Your task to perform on an android device: turn on sleep mode Image 0: 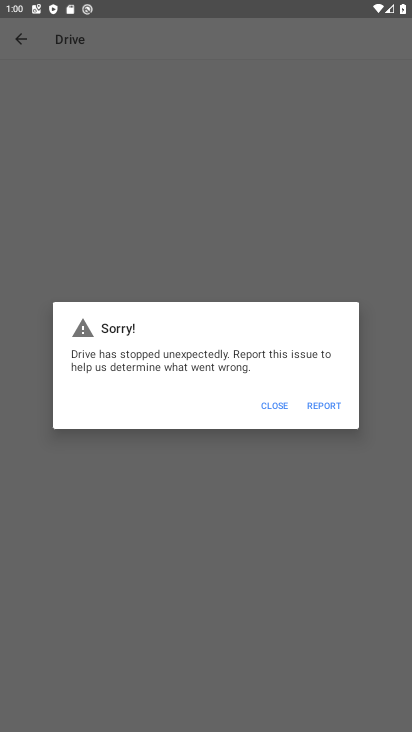
Step 0: press home button
Your task to perform on an android device: turn on sleep mode Image 1: 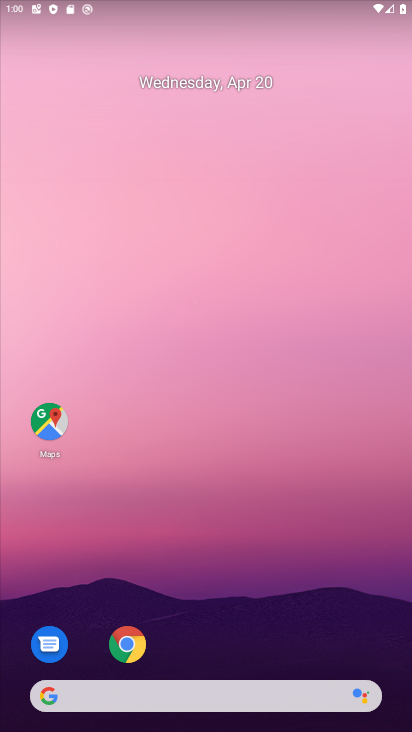
Step 1: drag from (183, 349) to (198, 3)
Your task to perform on an android device: turn on sleep mode Image 2: 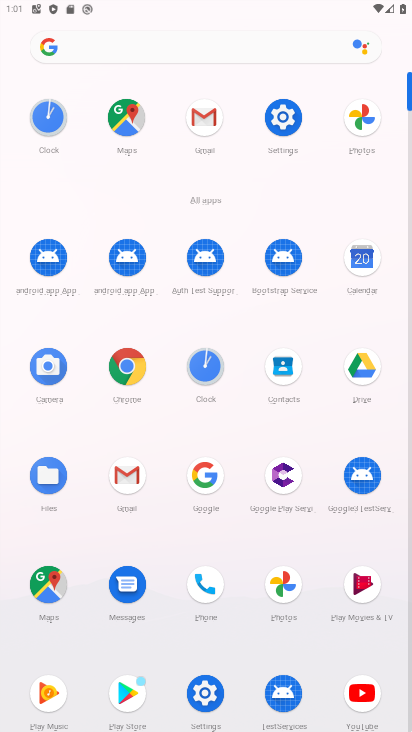
Step 2: click (285, 116)
Your task to perform on an android device: turn on sleep mode Image 3: 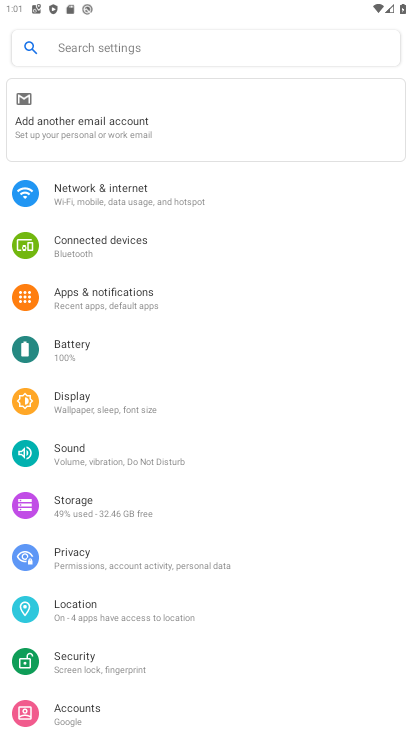
Step 3: click (152, 406)
Your task to perform on an android device: turn on sleep mode Image 4: 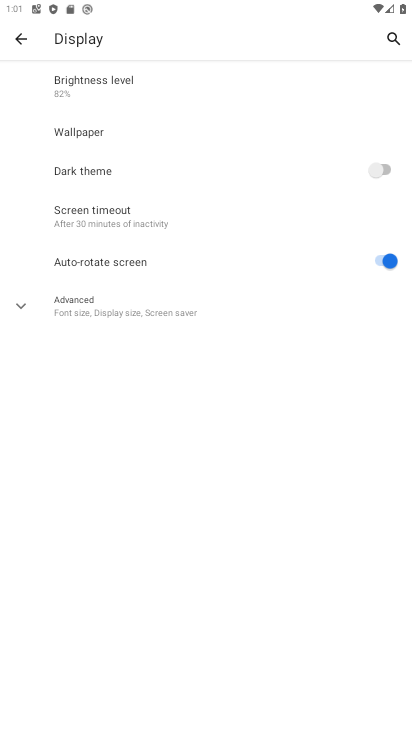
Step 4: click (117, 224)
Your task to perform on an android device: turn on sleep mode Image 5: 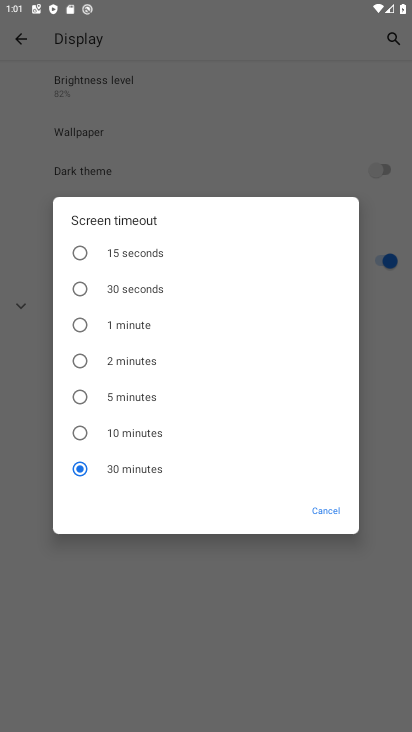
Step 5: click (81, 470)
Your task to perform on an android device: turn on sleep mode Image 6: 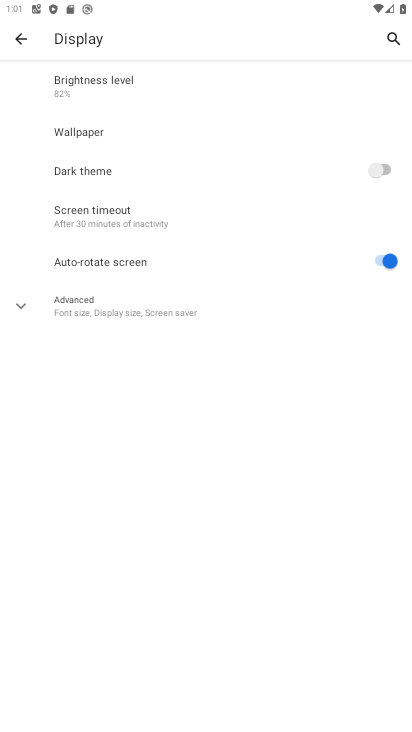
Step 6: task complete